Your task to perform on an android device: Open location settings Image 0: 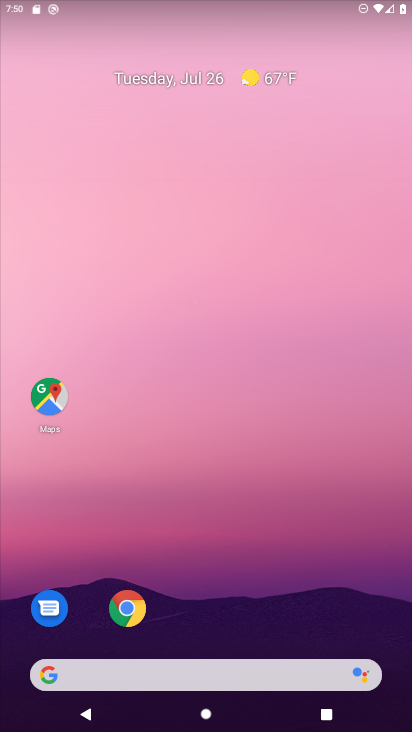
Step 0: drag from (219, 566) to (224, 428)
Your task to perform on an android device: Open location settings Image 1: 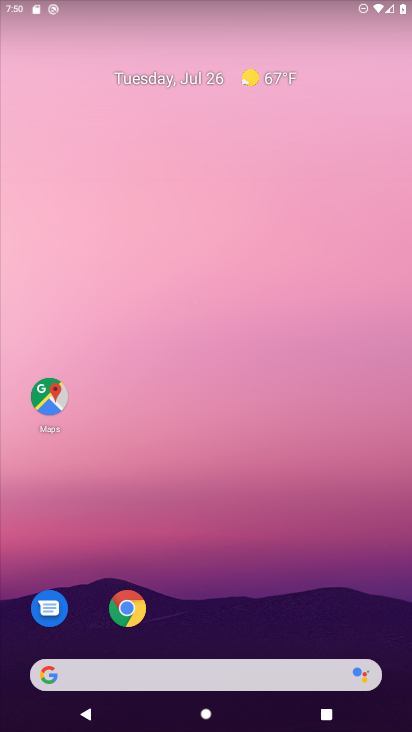
Step 1: drag from (212, 627) to (303, 26)
Your task to perform on an android device: Open location settings Image 2: 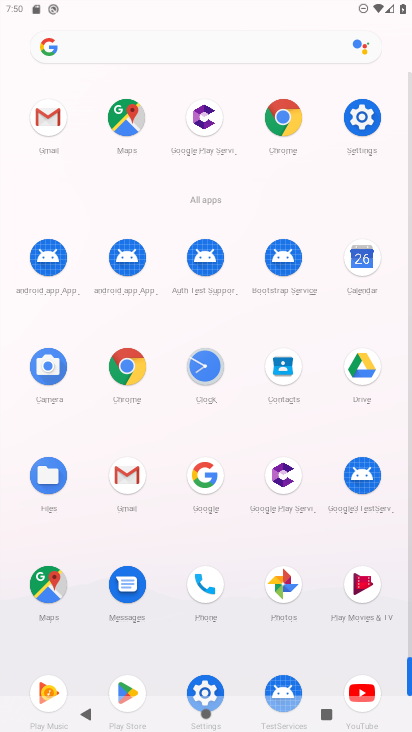
Step 2: drag from (215, 655) to (242, 457)
Your task to perform on an android device: Open location settings Image 3: 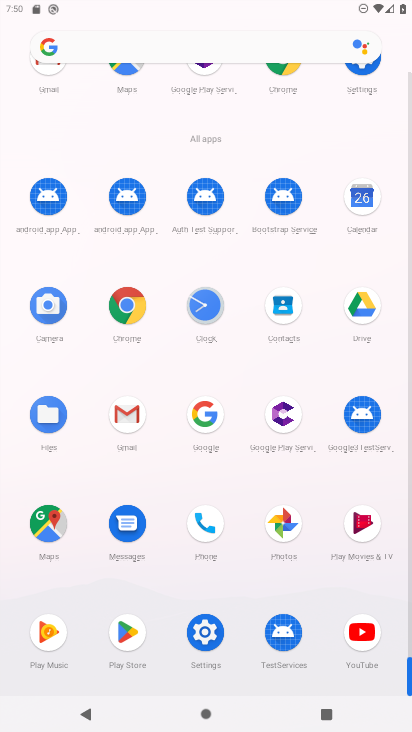
Step 3: click (202, 645)
Your task to perform on an android device: Open location settings Image 4: 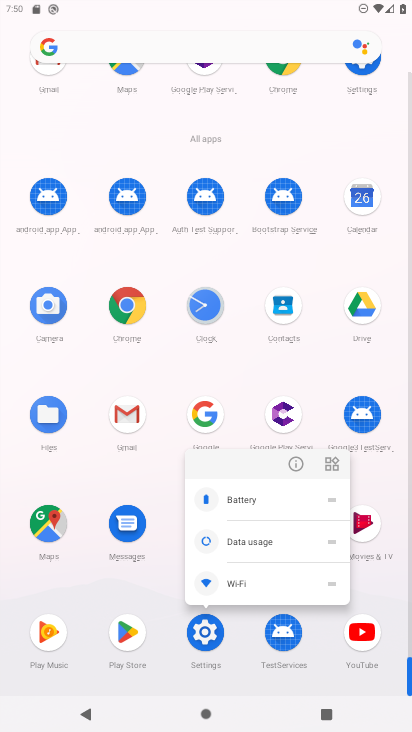
Step 4: click (199, 643)
Your task to perform on an android device: Open location settings Image 5: 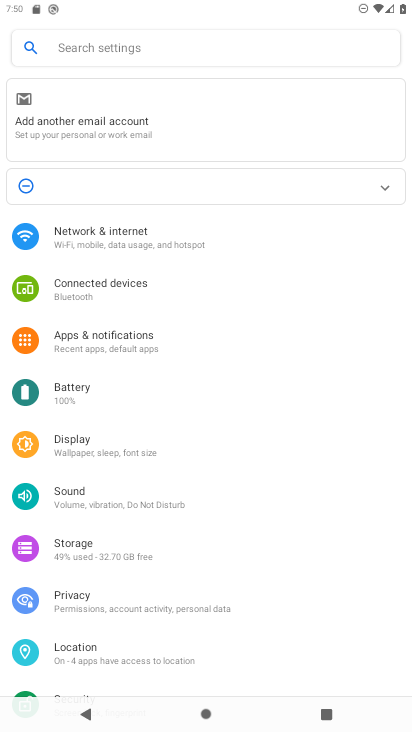
Step 5: click (81, 651)
Your task to perform on an android device: Open location settings Image 6: 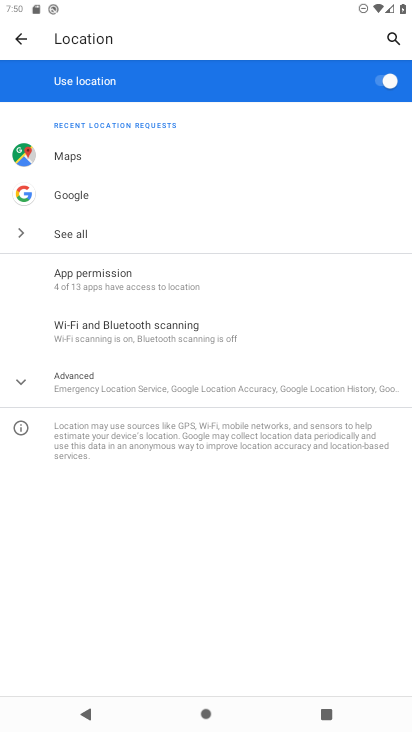
Step 6: task complete